Your task to perform on an android device: open app "LiveIn - Share Your Moment" (install if not already installed) Image 0: 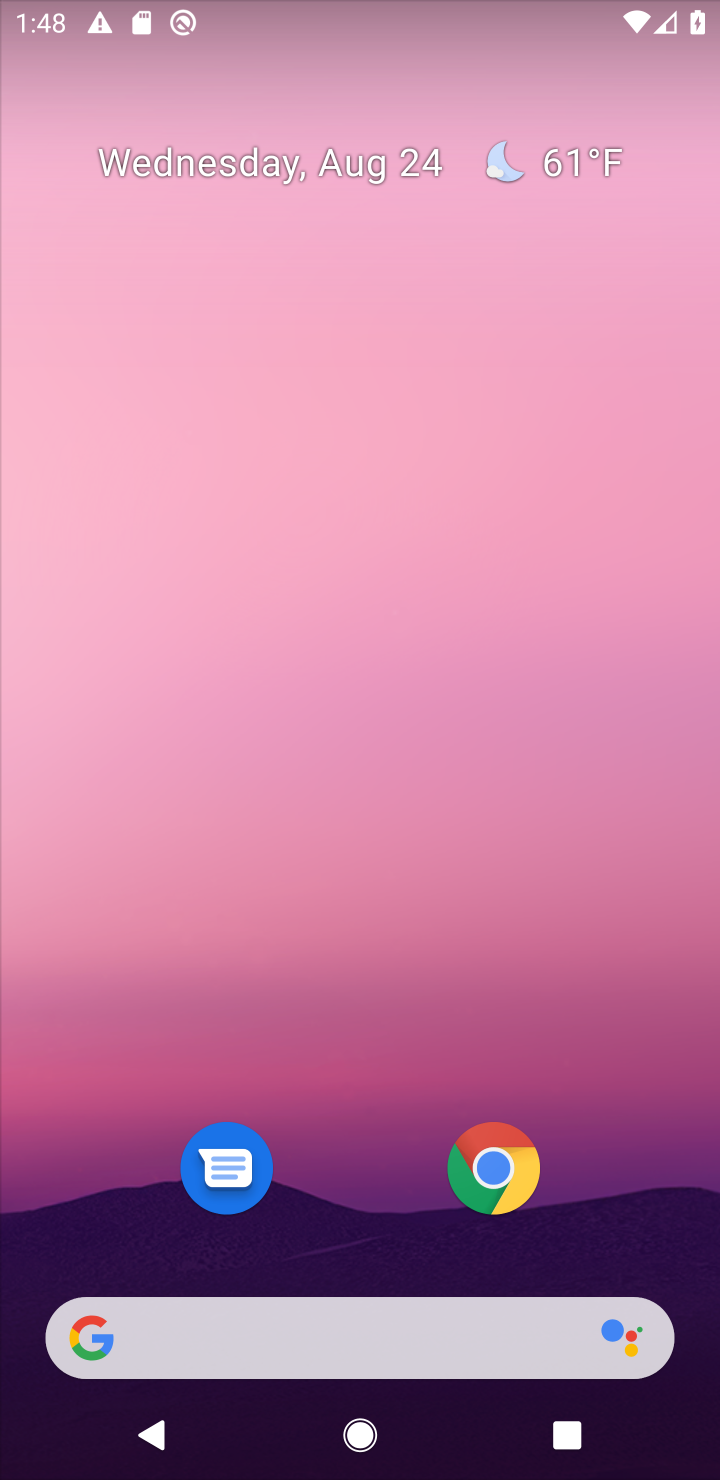
Step 0: drag from (669, 1281) to (604, 67)
Your task to perform on an android device: open app "LiveIn - Share Your Moment" (install if not already installed) Image 1: 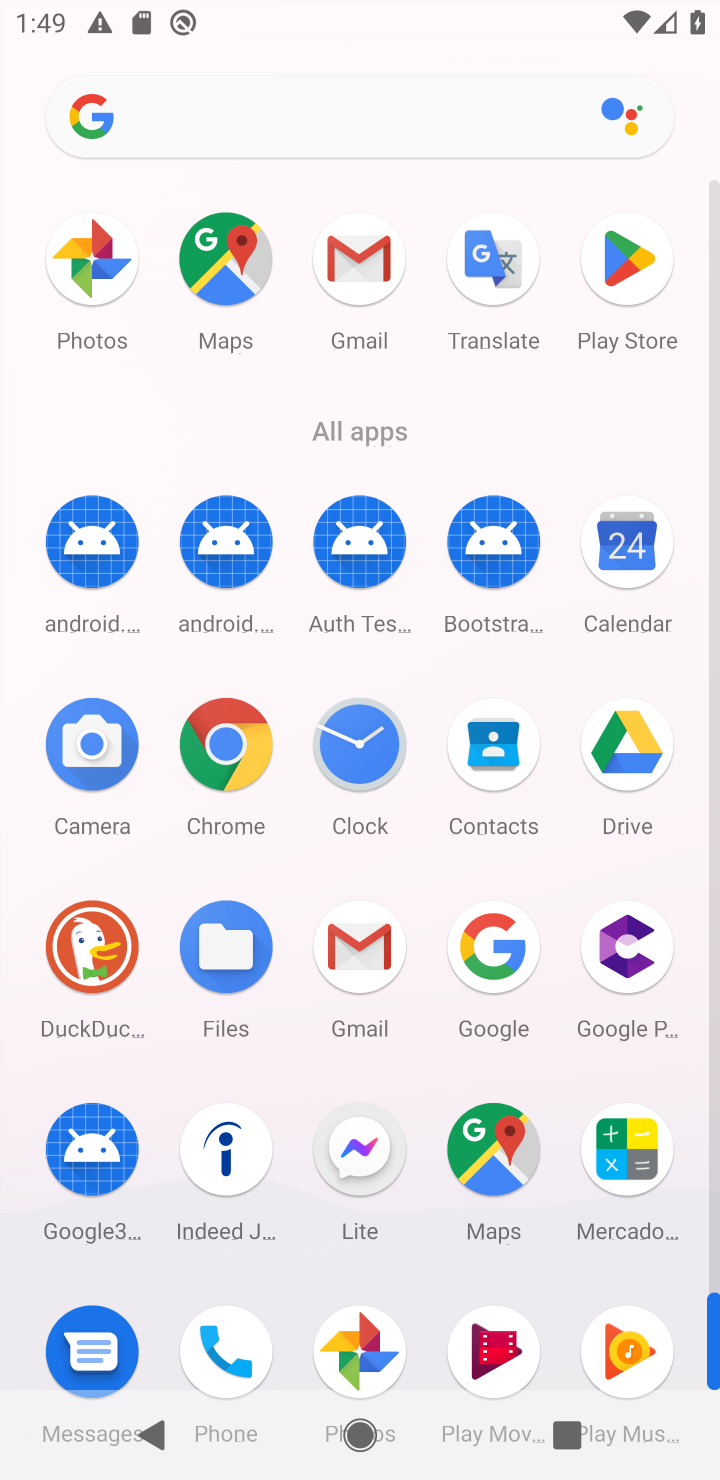
Step 1: click (716, 1256)
Your task to perform on an android device: open app "LiveIn - Share Your Moment" (install if not already installed) Image 2: 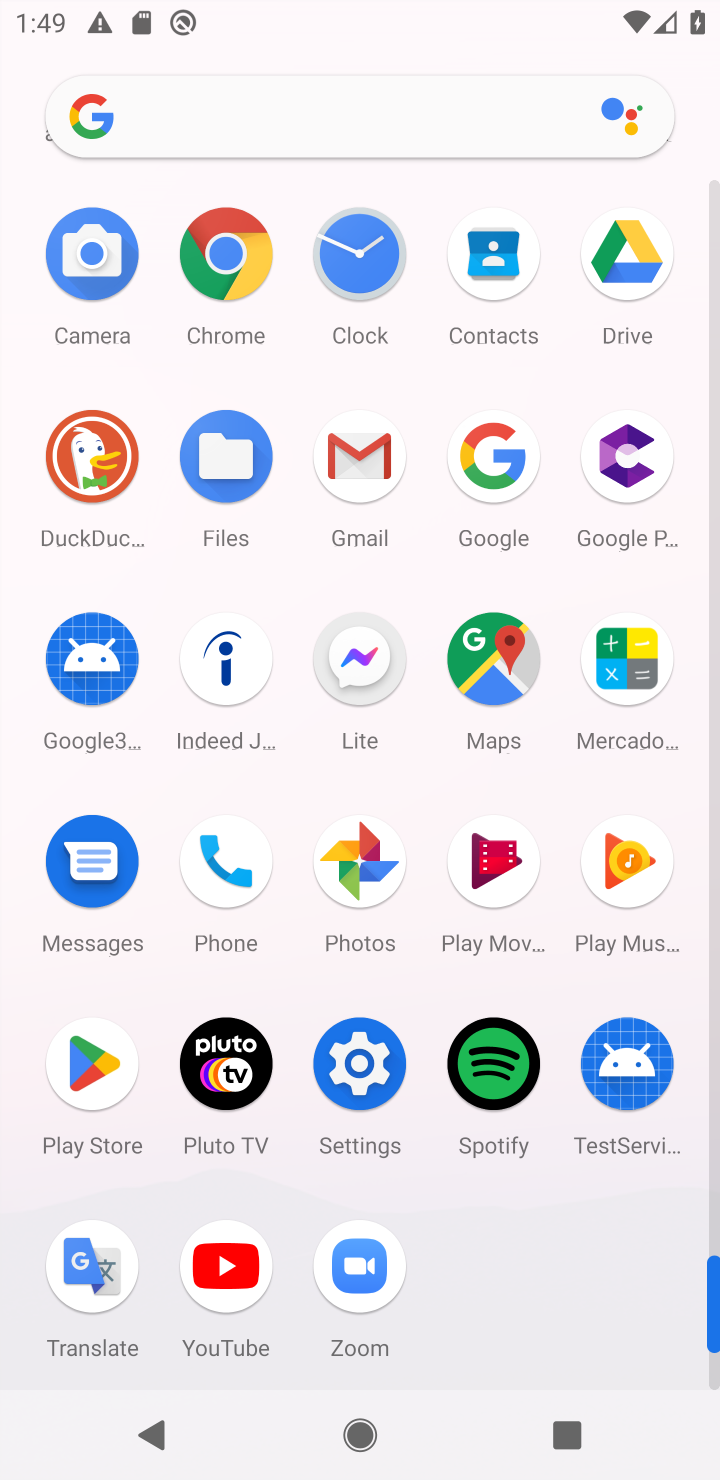
Step 2: click (94, 1062)
Your task to perform on an android device: open app "LiveIn - Share Your Moment" (install if not already installed) Image 3: 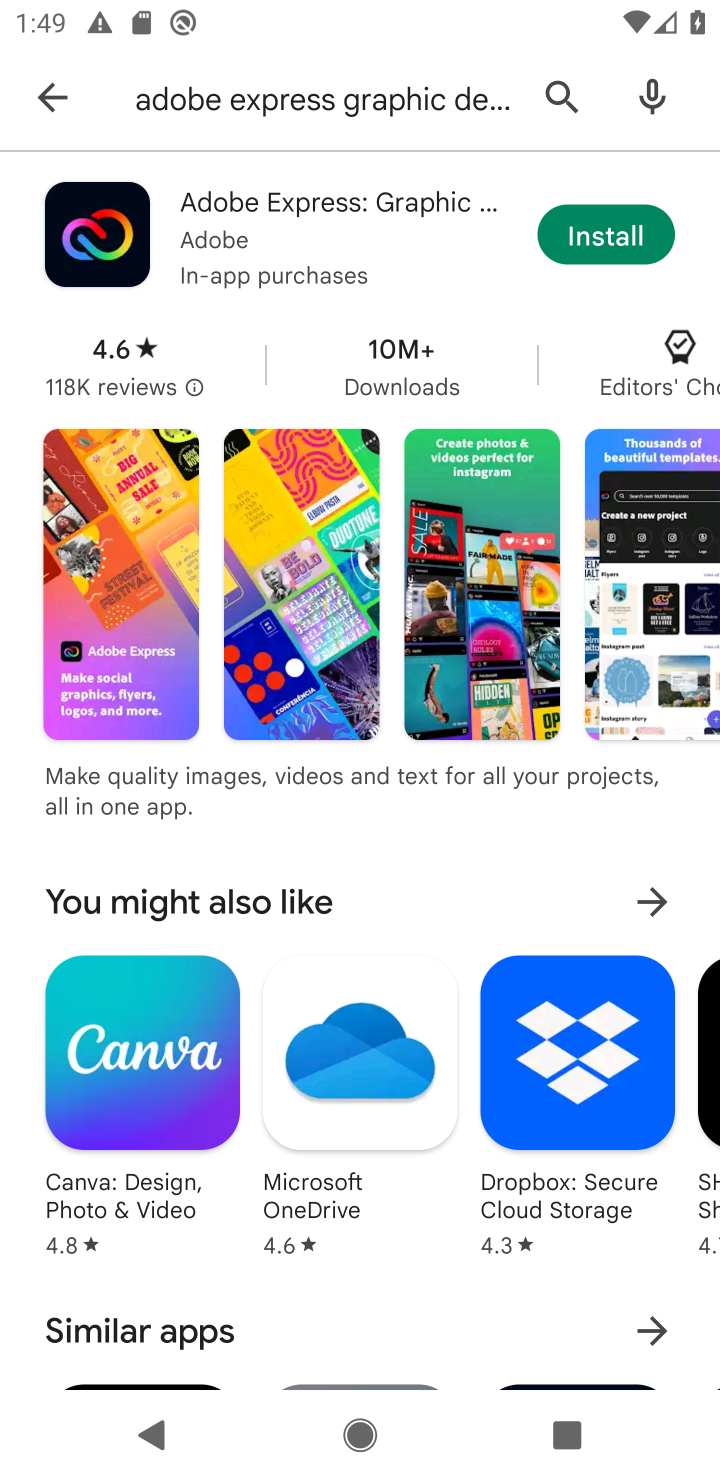
Step 3: click (556, 86)
Your task to perform on an android device: open app "LiveIn - Share Your Moment" (install if not already installed) Image 4: 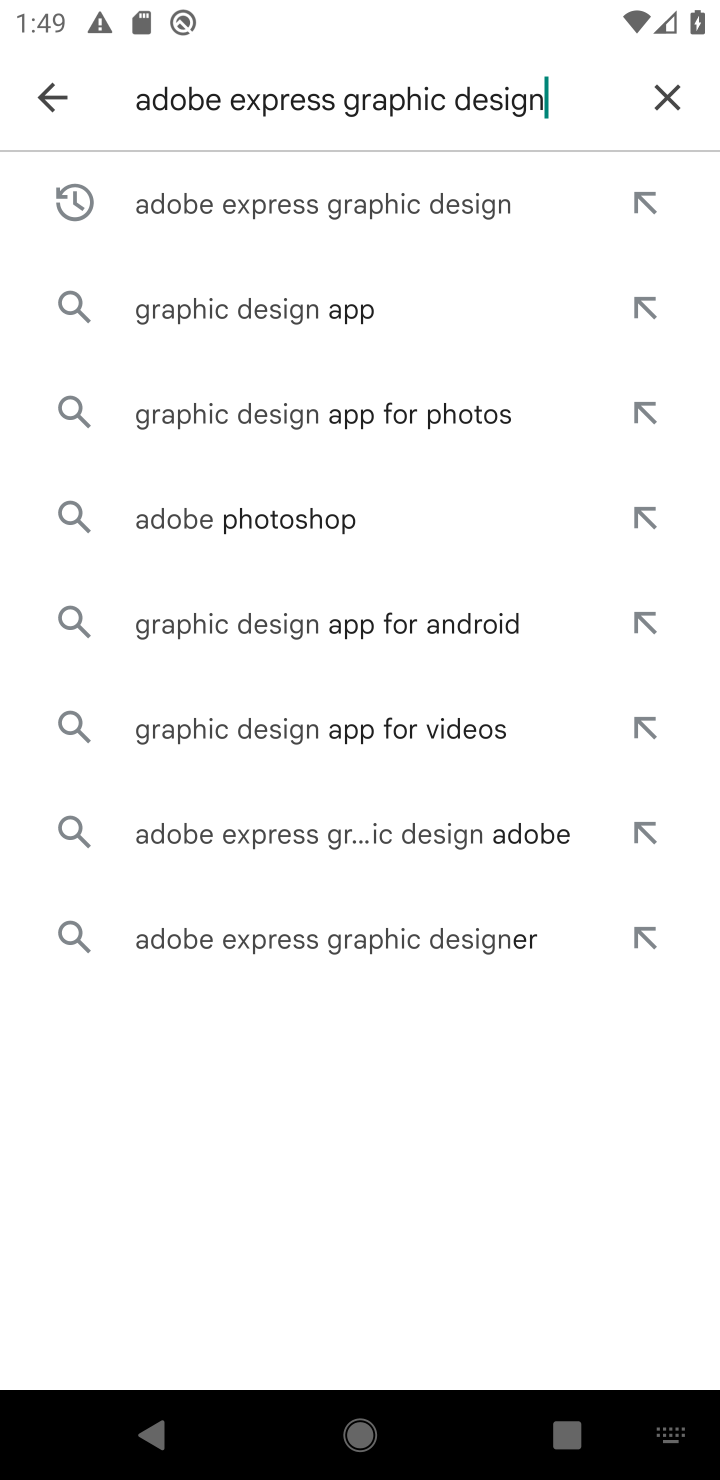
Step 4: click (663, 91)
Your task to perform on an android device: open app "LiveIn - Share Your Moment" (install if not already installed) Image 5: 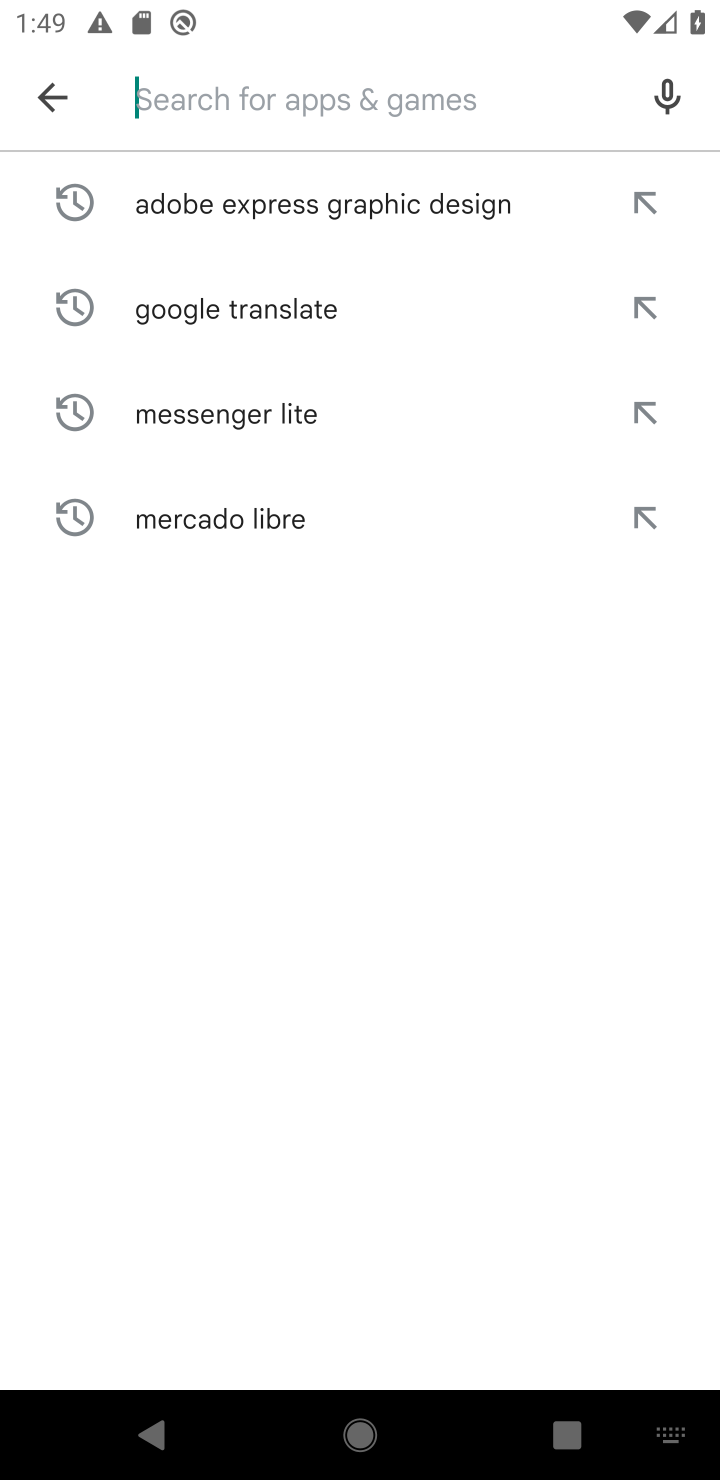
Step 5: type "LiveIn - Share Your Moment"
Your task to perform on an android device: open app "LiveIn - Share Your Moment" (install if not already installed) Image 6: 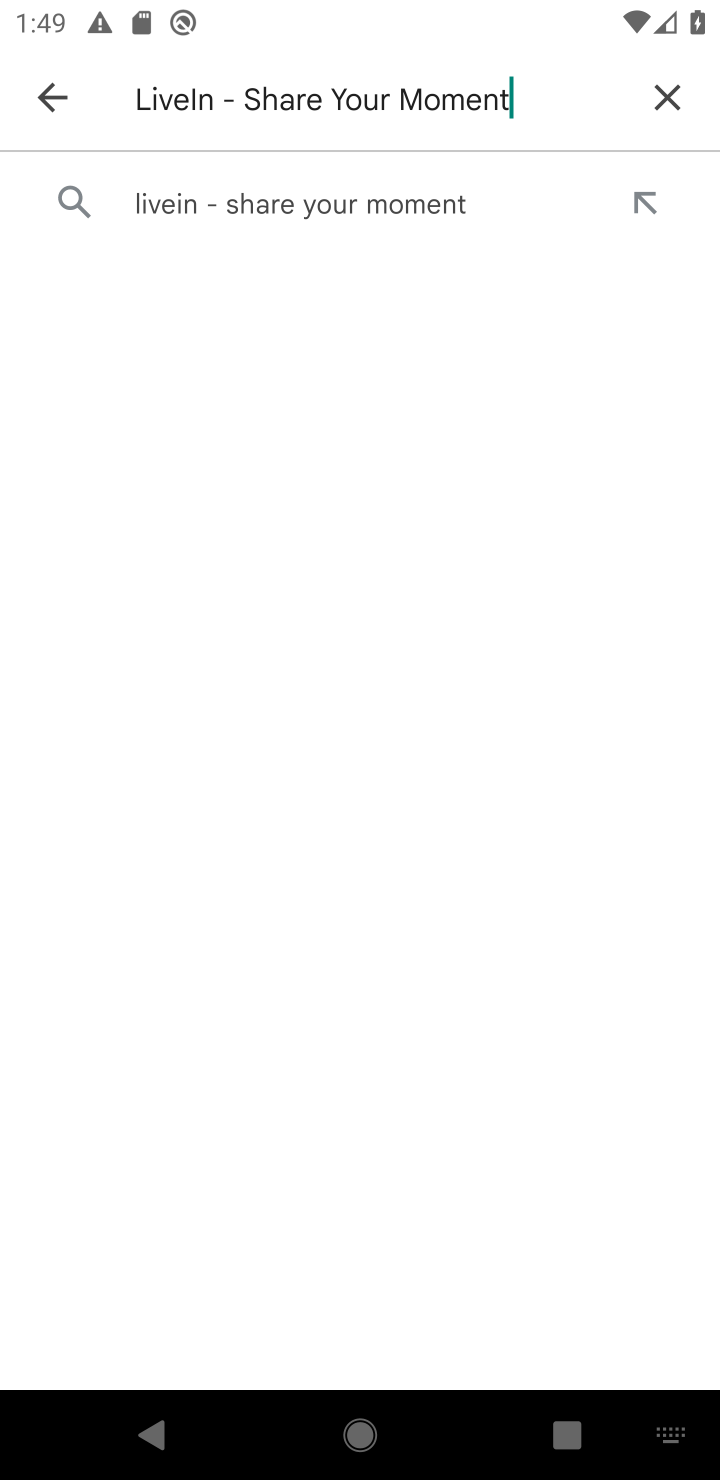
Step 6: click (215, 198)
Your task to perform on an android device: open app "LiveIn - Share Your Moment" (install if not already installed) Image 7: 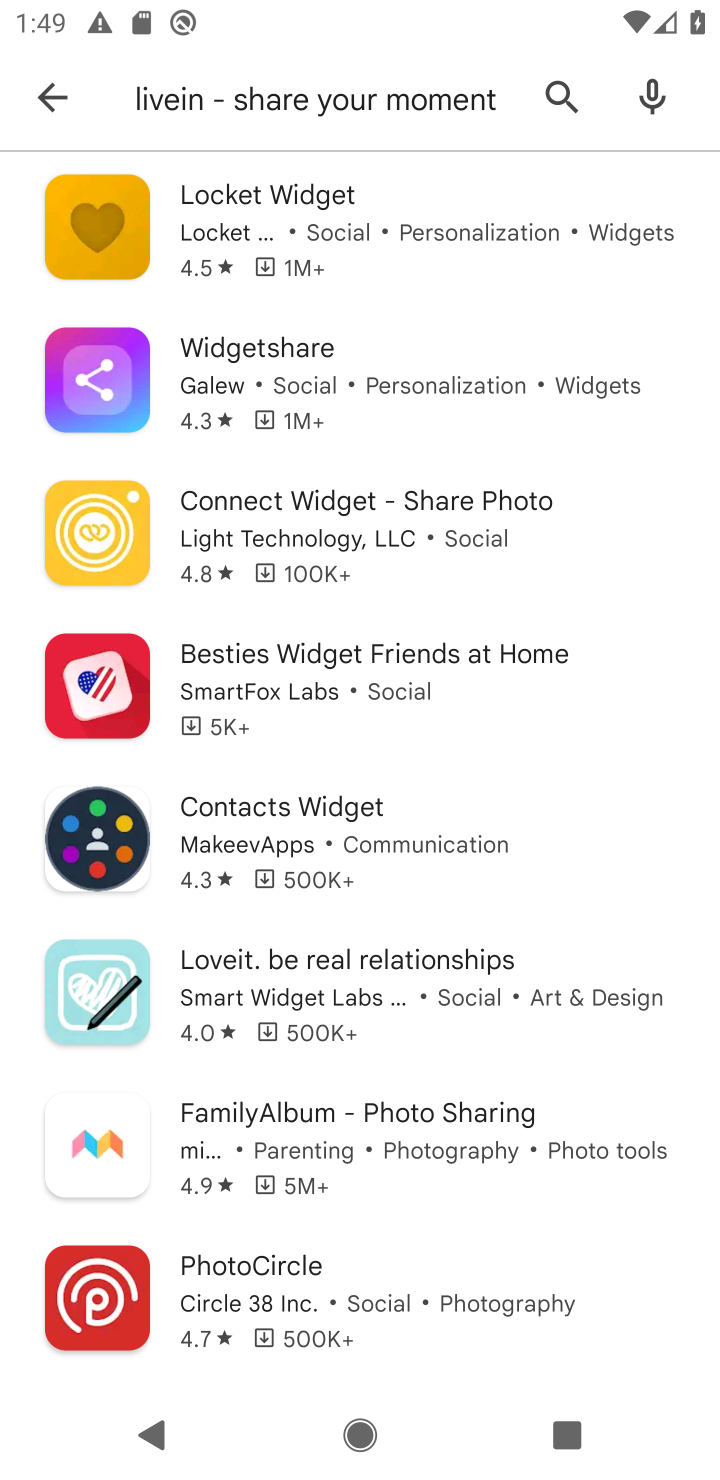
Step 7: task complete